Your task to perform on an android device: create a new album in the google photos Image 0: 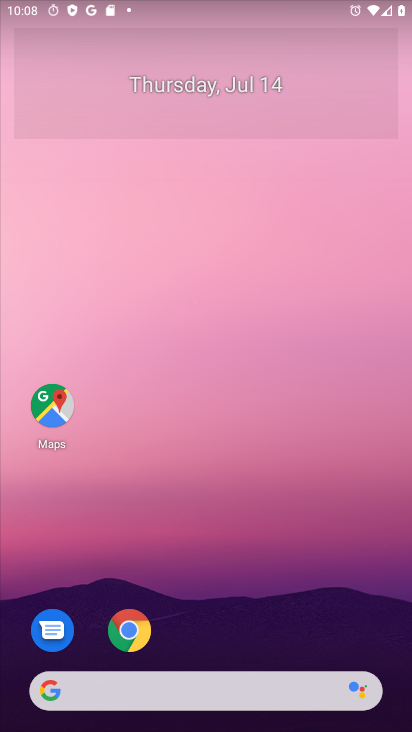
Step 0: drag from (75, 567) to (208, 43)
Your task to perform on an android device: create a new album in the google photos Image 1: 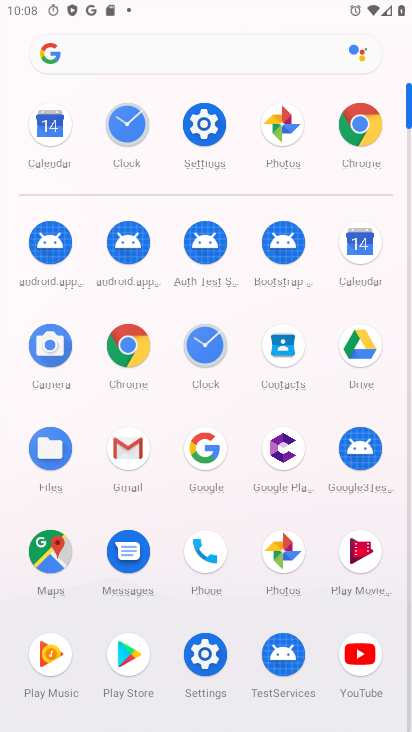
Step 1: click (280, 549)
Your task to perform on an android device: create a new album in the google photos Image 2: 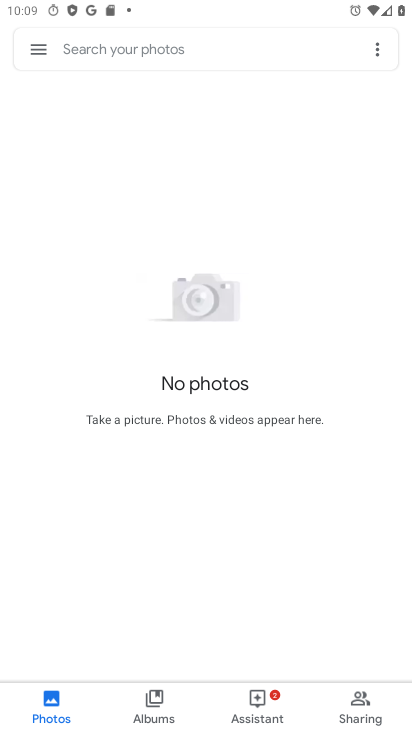
Step 2: task complete